Your task to perform on an android device: turn on sleep mode Image 0: 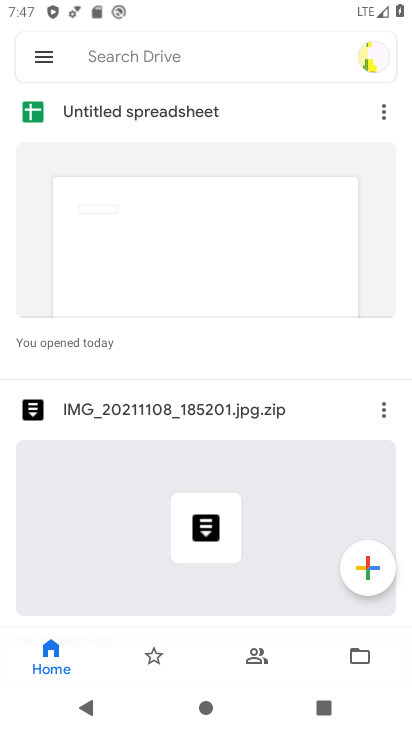
Step 0: press home button
Your task to perform on an android device: turn on sleep mode Image 1: 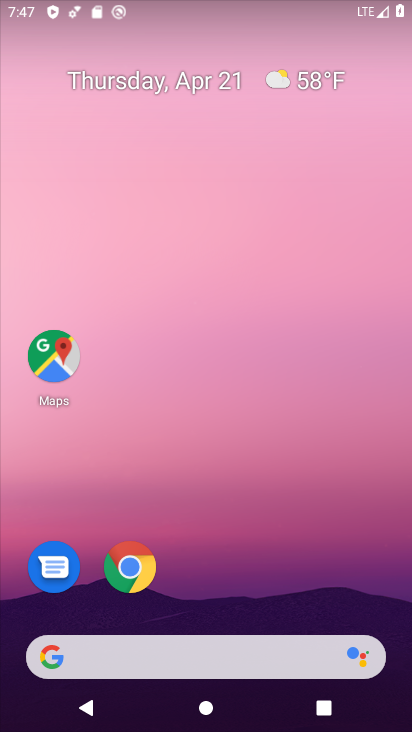
Step 1: drag from (222, 603) to (193, 112)
Your task to perform on an android device: turn on sleep mode Image 2: 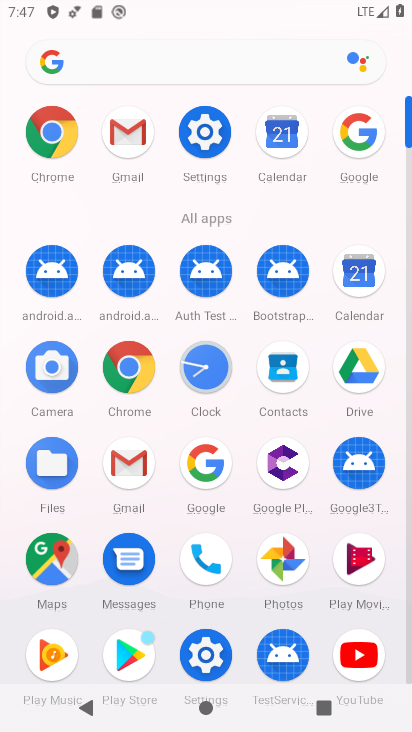
Step 2: click (204, 129)
Your task to perform on an android device: turn on sleep mode Image 3: 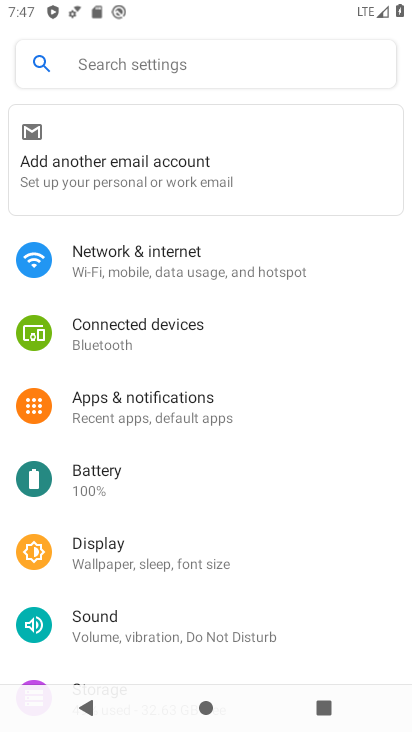
Step 3: click (222, 566)
Your task to perform on an android device: turn on sleep mode Image 4: 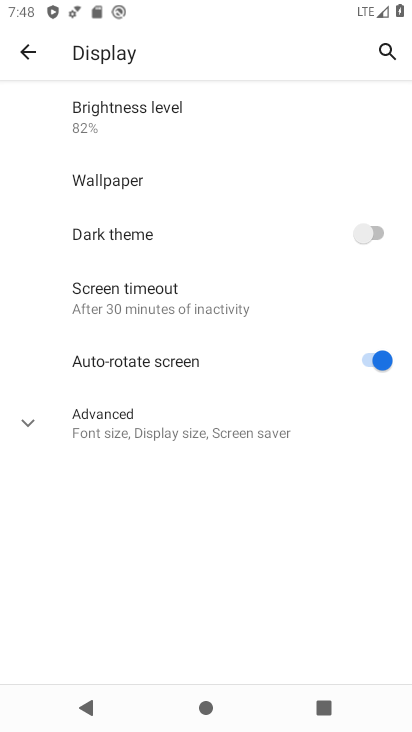
Step 4: click (194, 300)
Your task to perform on an android device: turn on sleep mode Image 5: 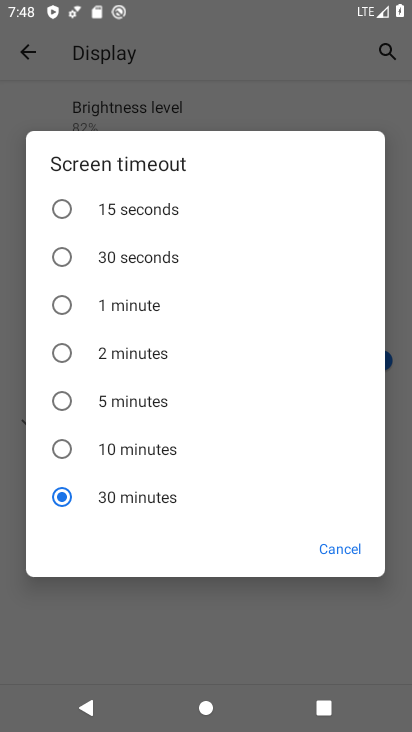
Step 5: drag from (187, 475) to (195, 334)
Your task to perform on an android device: turn on sleep mode Image 6: 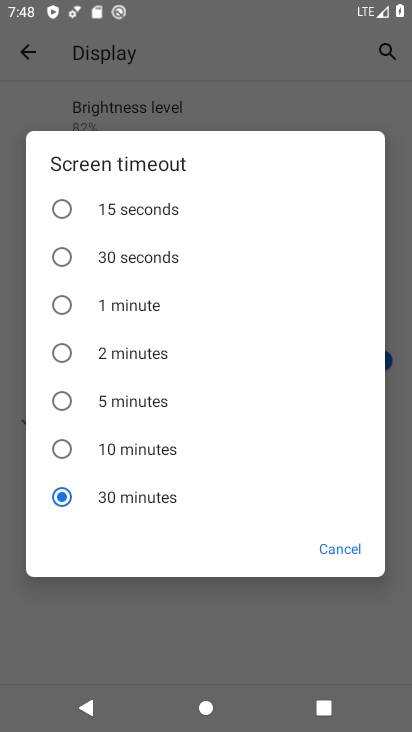
Step 6: drag from (172, 251) to (210, 457)
Your task to perform on an android device: turn on sleep mode Image 7: 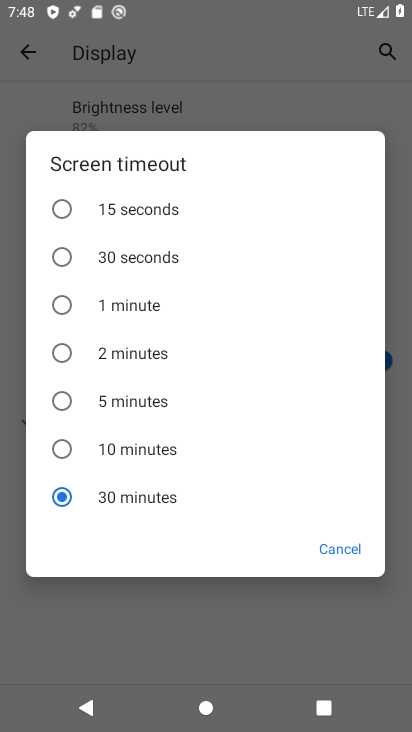
Step 7: click (336, 551)
Your task to perform on an android device: turn on sleep mode Image 8: 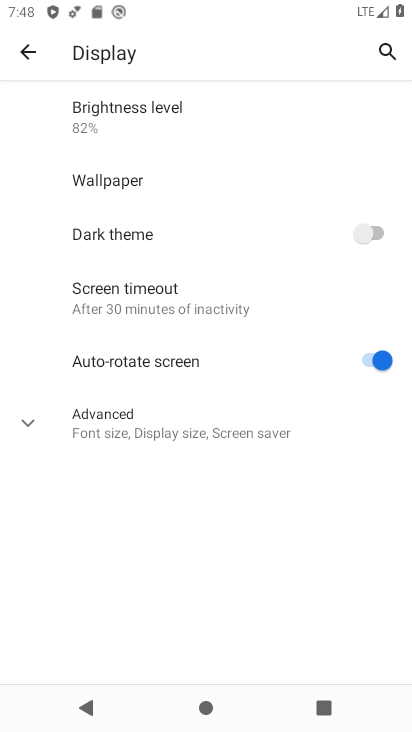
Step 8: click (191, 441)
Your task to perform on an android device: turn on sleep mode Image 9: 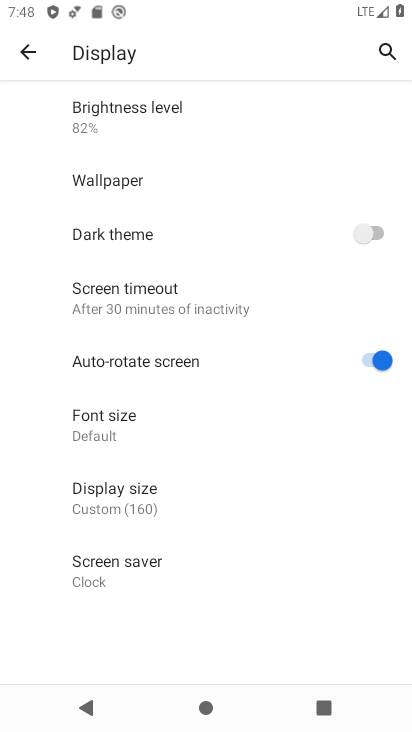
Step 9: task complete